Your task to perform on an android device: Play the last video I watched on Youtube Image 0: 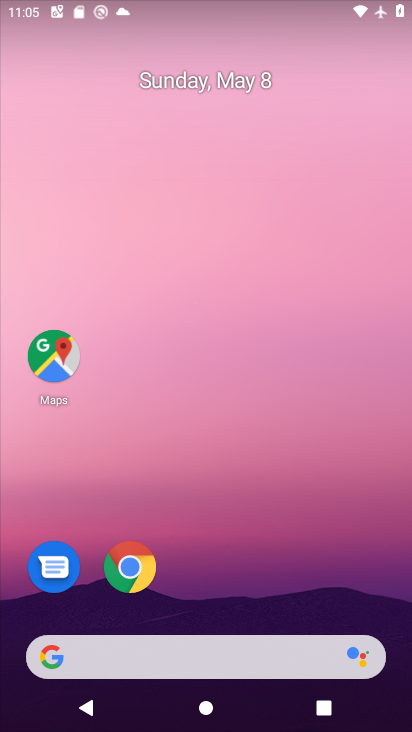
Step 0: drag from (327, 594) to (215, 238)
Your task to perform on an android device: Play the last video I watched on Youtube Image 1: 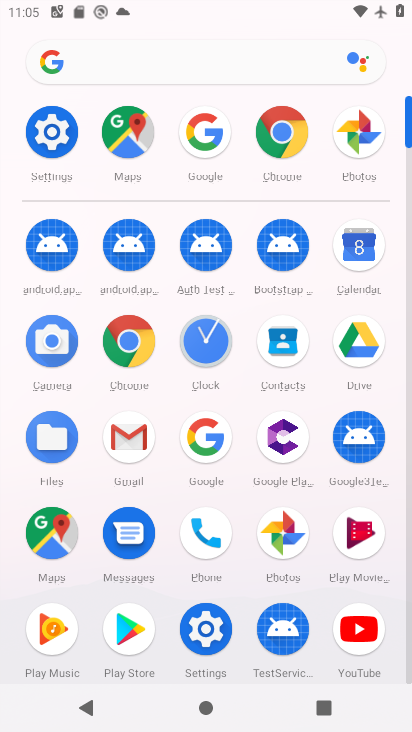
Step 1: click (363, 626)
Your task to perform on an android device: Play the last video I watched on Youtube Image 2: 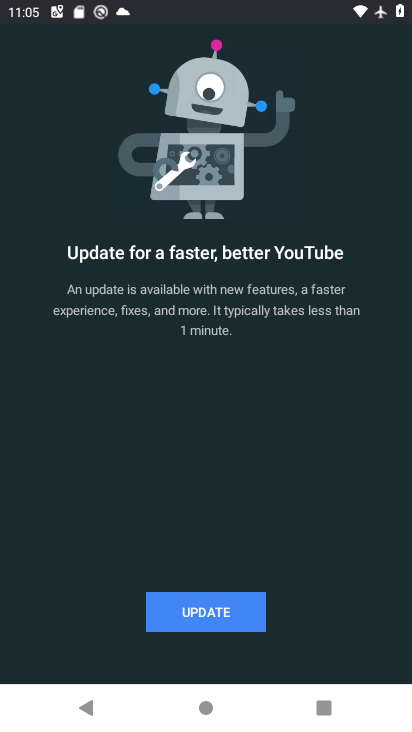
Step 2: click (241, 621)
Your task to perform on an android device: Play the last video I watched on Youtube Image 3: 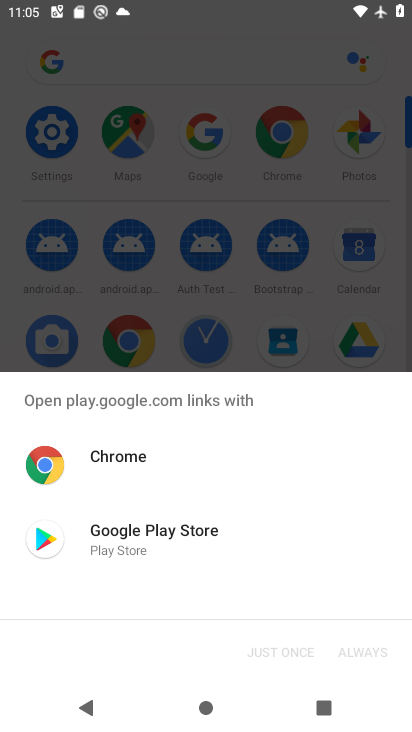
Step 3: press home button
Your task to perform on an android device: Play the last video I watched on Youtube Image 4: 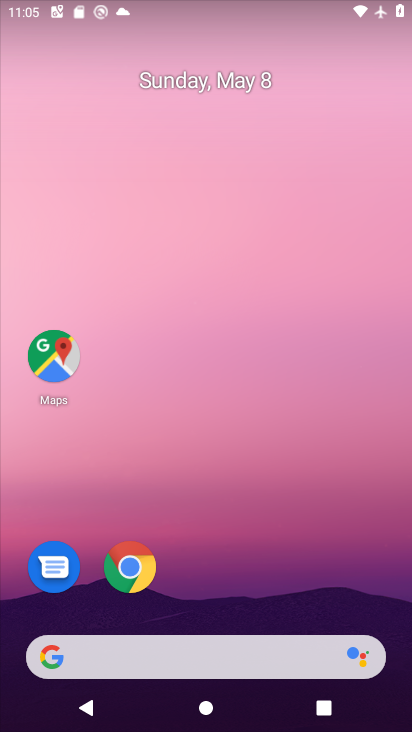
Step 4: drag from (210, 590) to (212, 184)
Your task to perform on an android device: Play the last video I watched on Youtube Image 5: 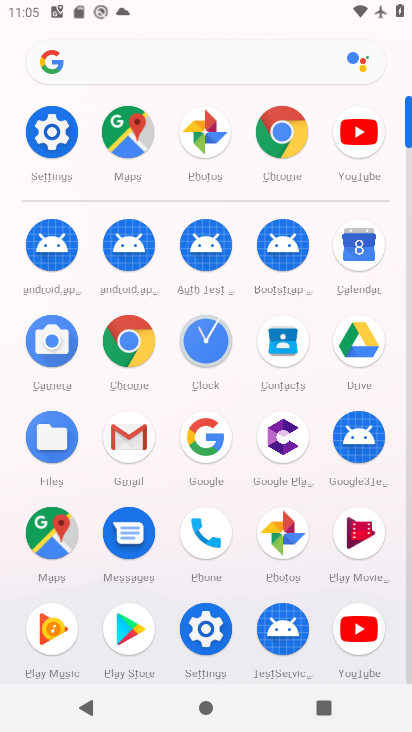
Step 5: click (358, 180)
Your task to perform on an android device: Play the last video I watched on Youtube Image 6: 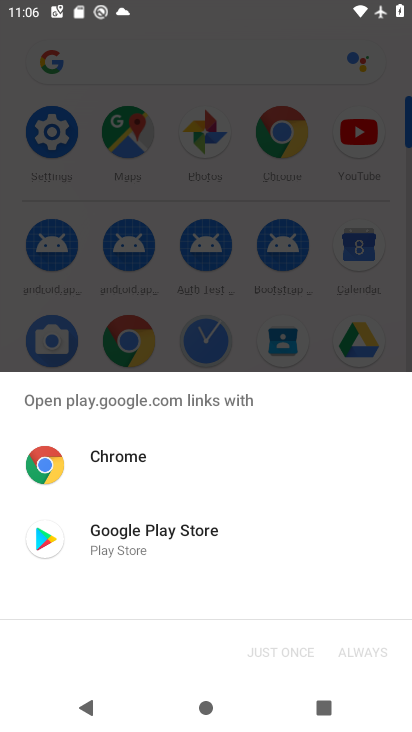
Step 6: press back button
Your task to perform on an android device: Play the last video I watched on Youtube Image 7: 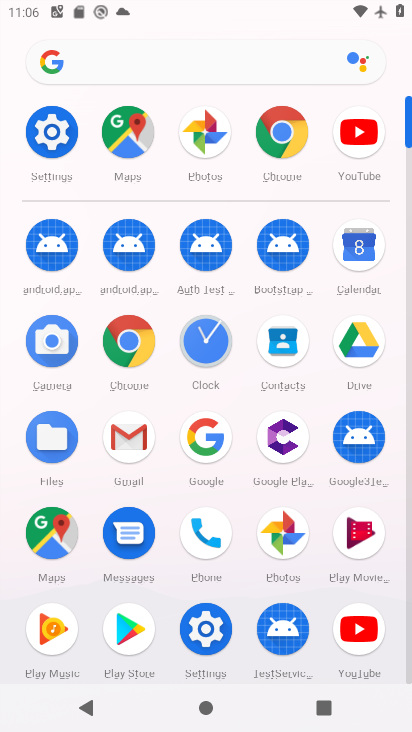
Step 7: click (349, 639)
Your task to perform on an android device: Play the last video I watched on Youtube Image 8: 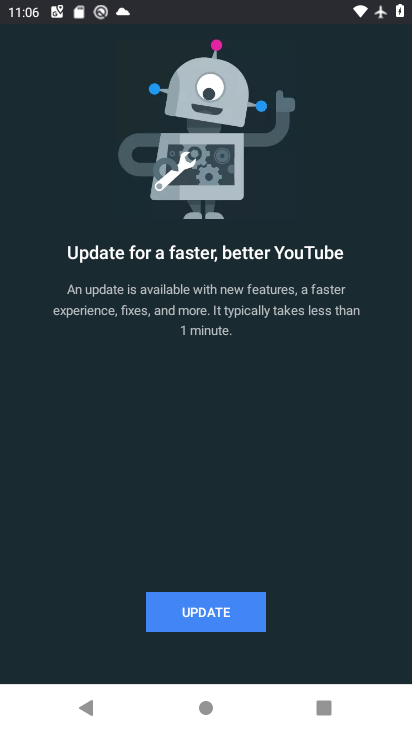
Step 8: drag from (236, 599) to (182, 599)
Your task to perform on an android device: Play the last video I watched on Youtube Image 9: 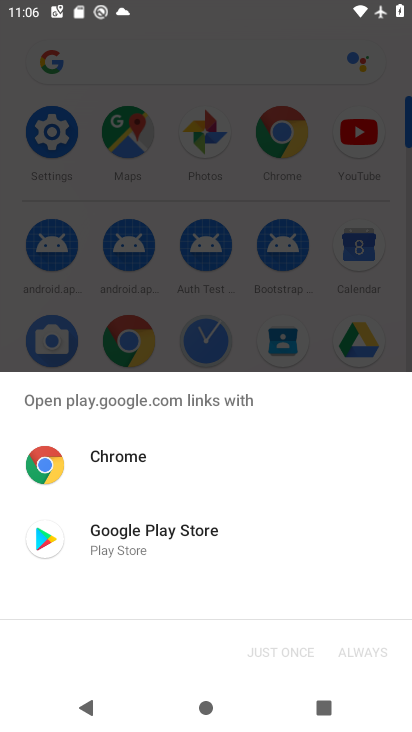
Step 9: click (120, 469)
Your task to perform on an android device: Play the last video I watched on Youtube Image 10: 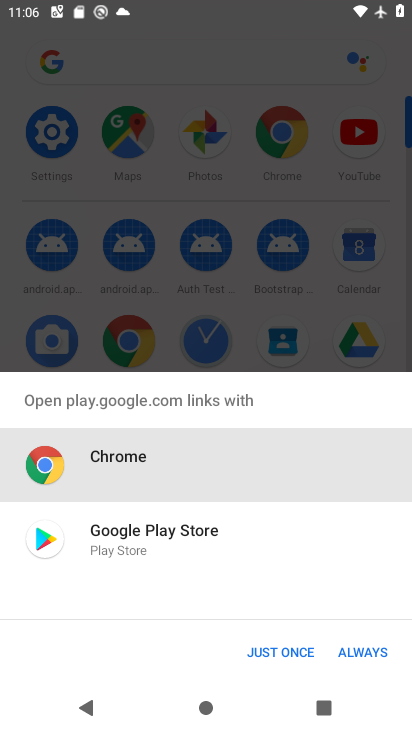
Step 10: click (272, 645)
Your task to perform on an android device: Play the last video I watched on Youtube Image 11: 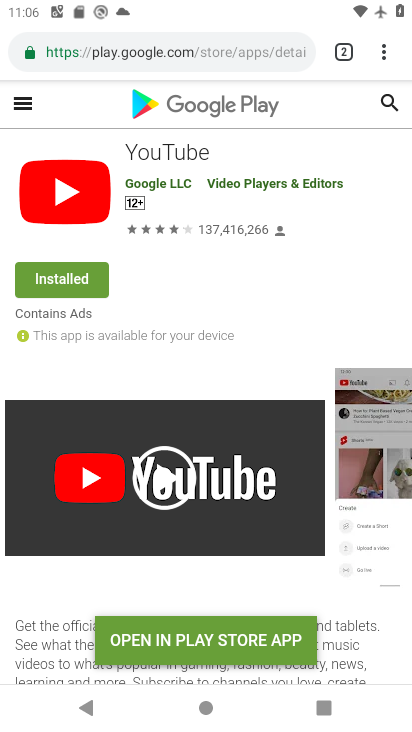
Step 11: task complete